Your task to perform on an android device: Open wifi settings Image 0: 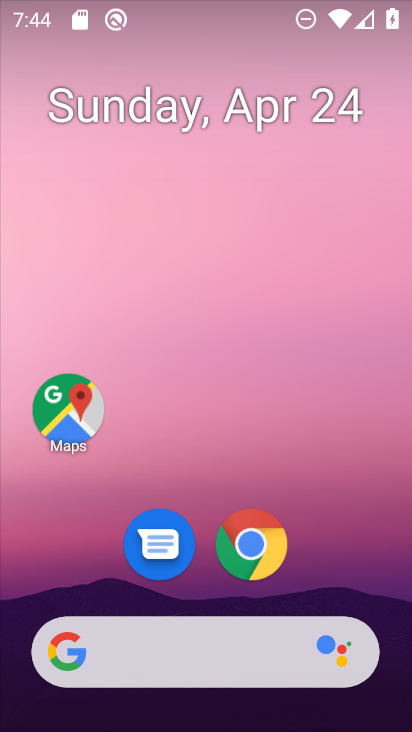
Step 0: drag from (171, 667) to (360, 52)
Your task to perform on an android device: Open wifi settings Image 1: 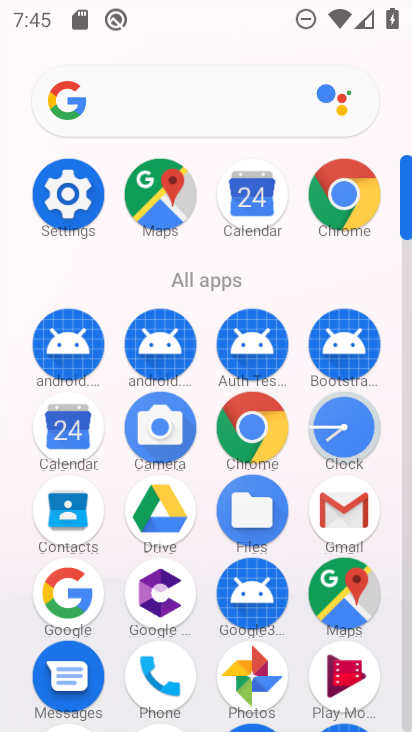
Step 1: click (79, 205)
Your task to perform on an android device: Open wifi settings Image 2: 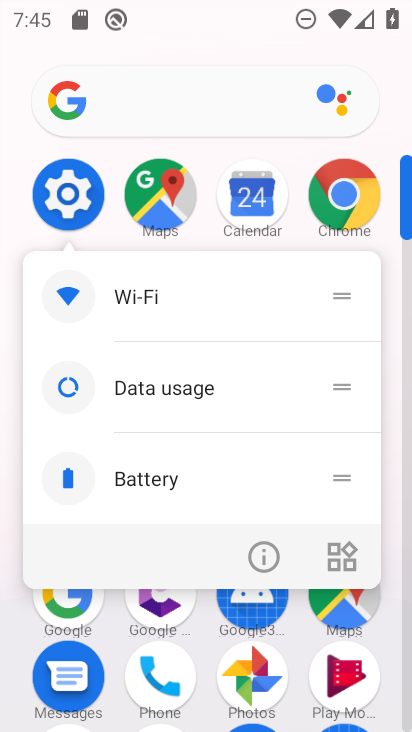
Step 2: click (59, 197)
Your task to perform on an android device: Open wifi settings Image 3: 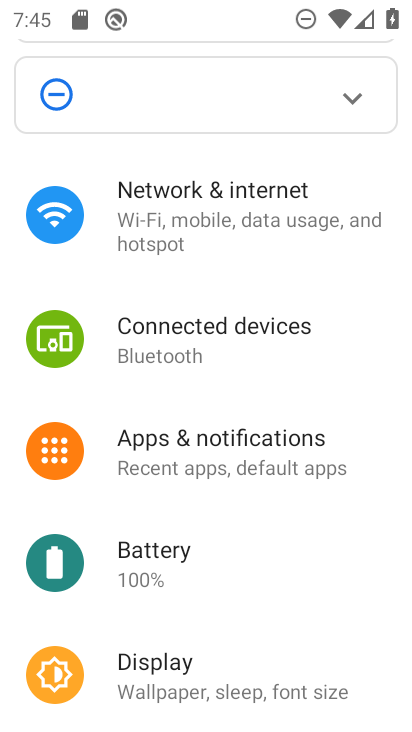
Step 3: click (229, 195)
Your task to perform on an android device: Open wifi settings Image 4: 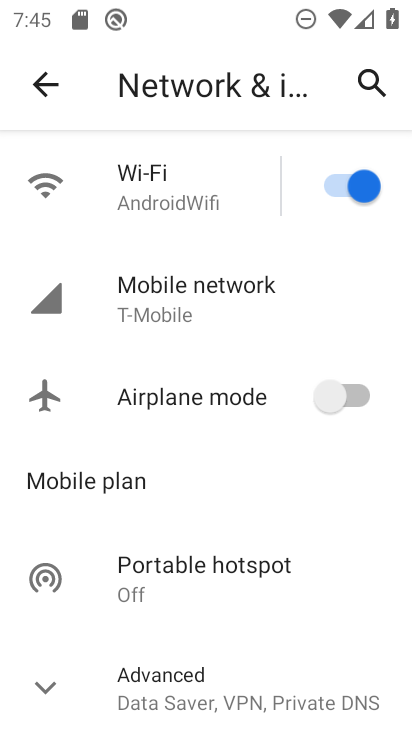
Step 4: click (161, 198)
Your task to perform on an android device: Open wifi settings Image 5: 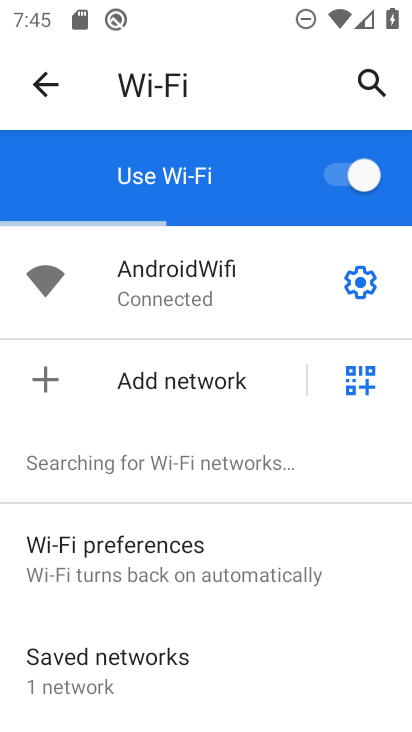
Step 5: task complete